Your task to perform on an android device: Show me the alarms in the clock app Image 0: 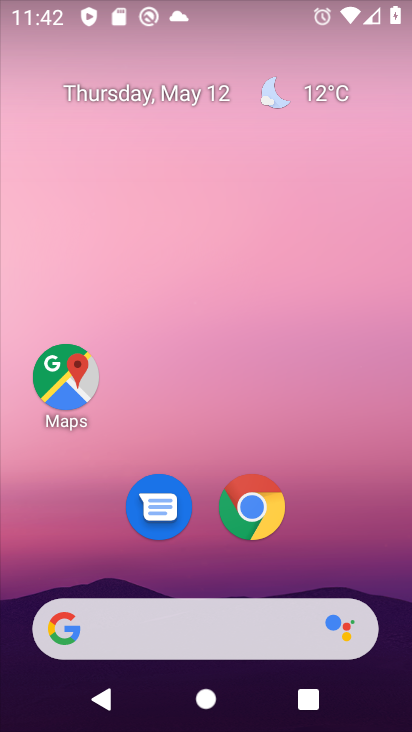
Step 0: drag from (206, 588) to (231, 22)
Your task to perform on an android device: Show me the alarms in the clock app Image 1: 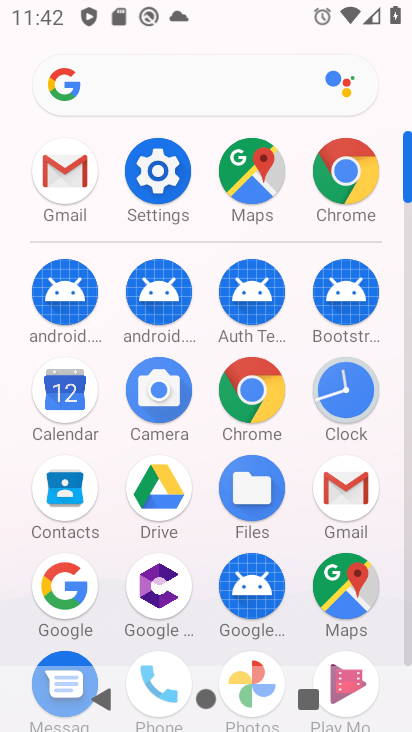
Step 1: click (354, 406)
Your task to perform on an android device: Show me the alarms in the clock app Image 2: 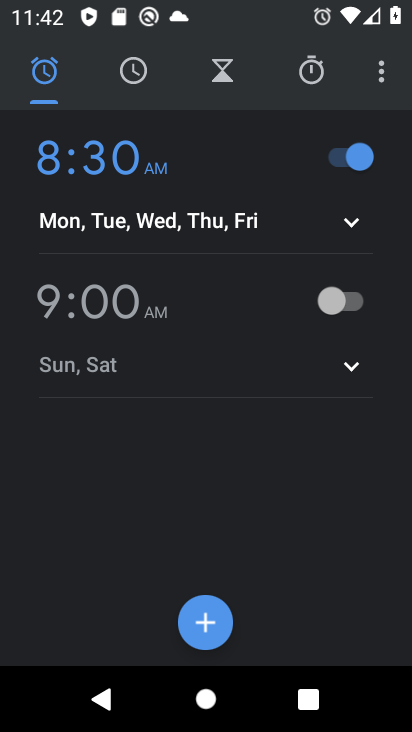
Step 2: task complete